Your task to perform on an android device: Search for sushi restaurants on Maps Image 0: 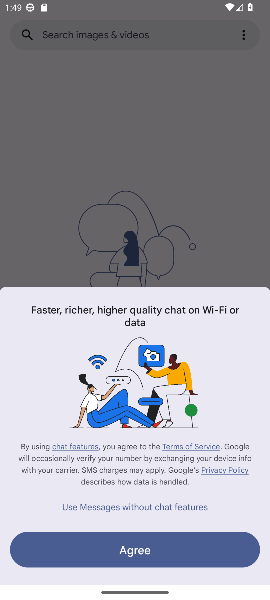
Step 0: press home button
Your task to perform on an android device: Search for sushi restaurants on Maps Image 1: 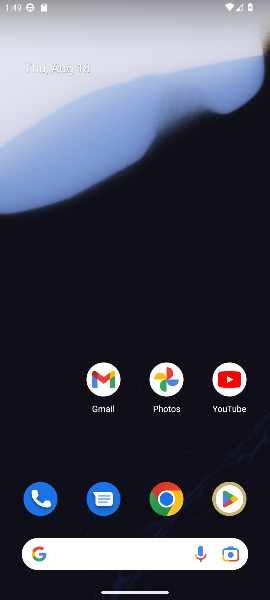
Step 1: drag from (137, 463) to (135, 108)
Your task to perform on an android device: Search for sushi restaurants on Maps Image 2: 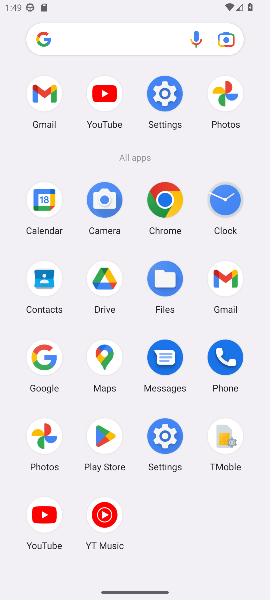
Step 2: click (101, 362)
Your task to perform on an android device: Search for sushi restaurants on Maps Image 3: 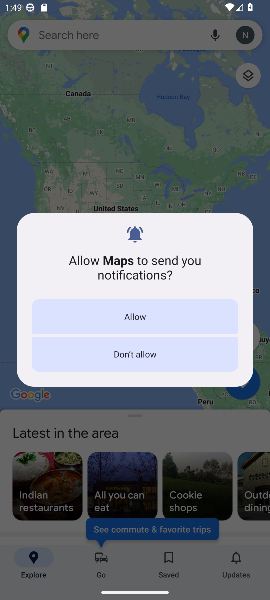
Step 3: click (133, 322)
Your task to perform on an android device: Search for sushi restaurants on Maps Image 4: 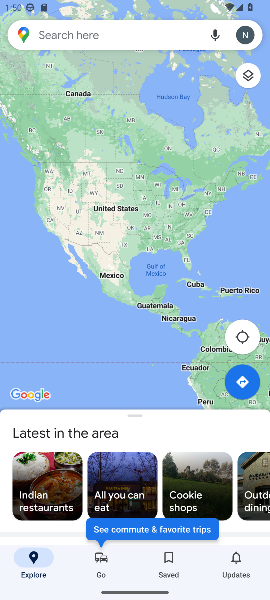
Step 4: click (98, 32)
Your task to perform on an android device: Search for sushi restaurants on Maps Image 5: 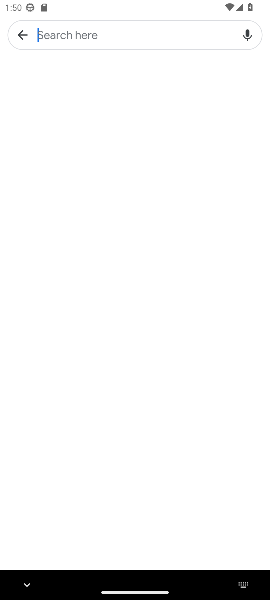
Step 5: type "sushi"
Your task to perform on an android device: Search for sushi restaurants on Maps Image 6: 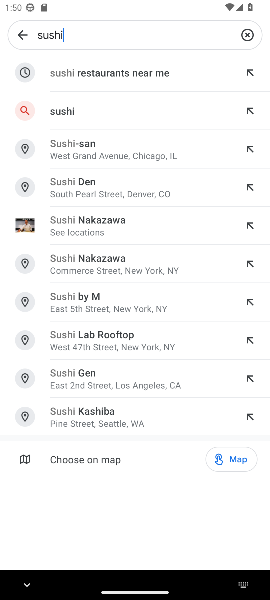
Step 6: click (96, 69)
Your task to perform on an android device: Search for sushi restaurants on Maps Image 7: 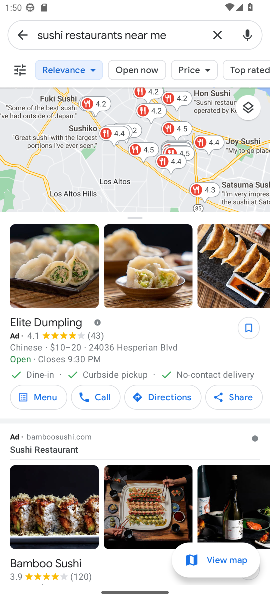
Step 7: task complete